Your task to perform on an android device: turn off notifications in google photos Image 0: 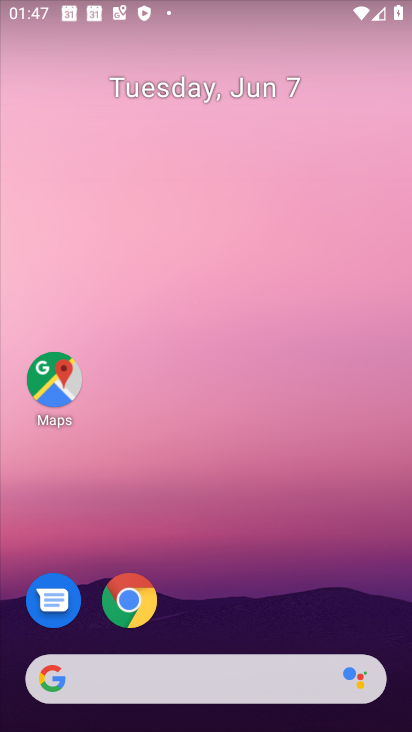
Step 0: drag from (214, 728) to (227, 137)
Your task to perform on an android device: turn off notifications in google photos Image 1: 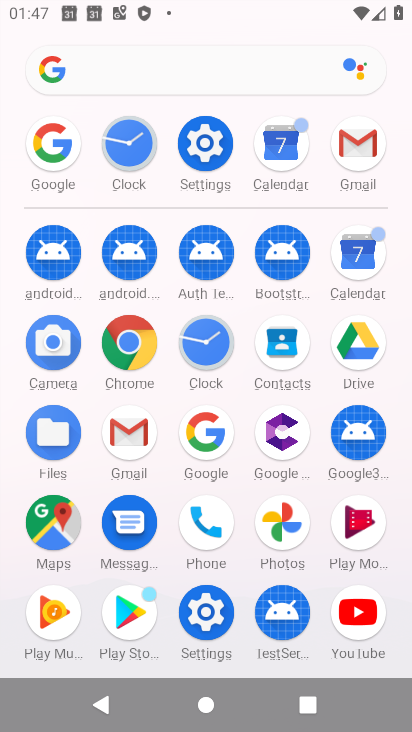
Step 1: click (283, 514)
Your task to perform on an android device: turn off notifications in google photos Image 2: 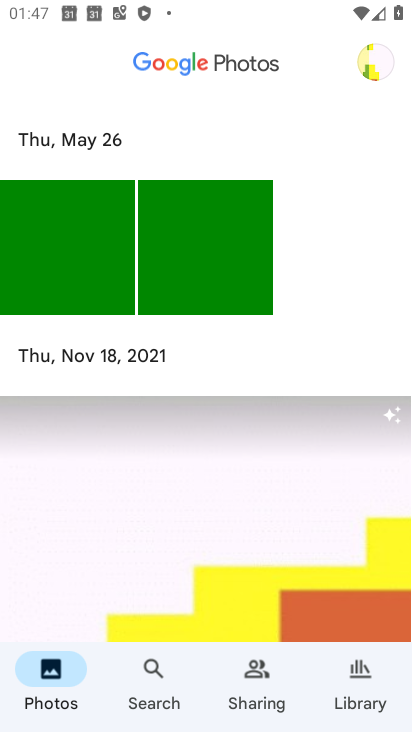
Step 2: click (378, 67)
Your task to perform on an android device: turn off notifications in google photos Image 3: 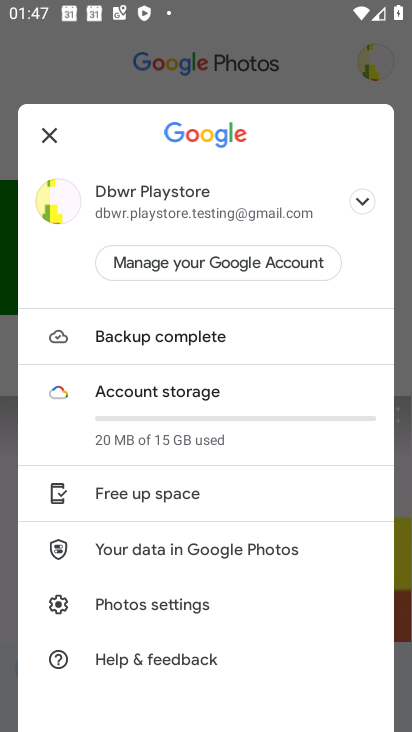
Step 3: click (145, 602)
Your task to perform on an android device: turn off notifications in google photos Image 4: 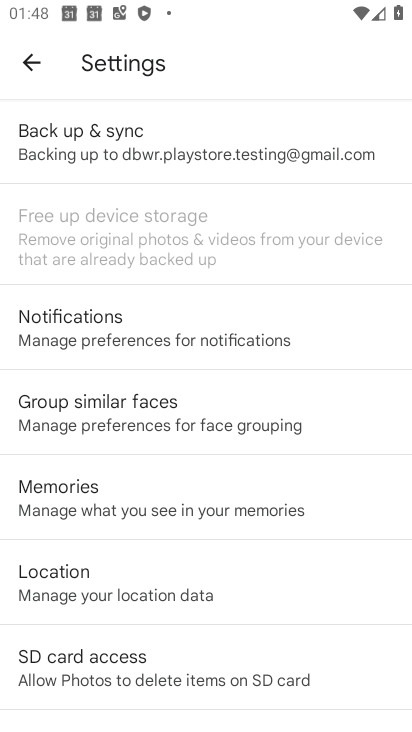
Step 4: click (90, 337)
Your task to perform on an android device: turn off notifications in google photos Image 5: 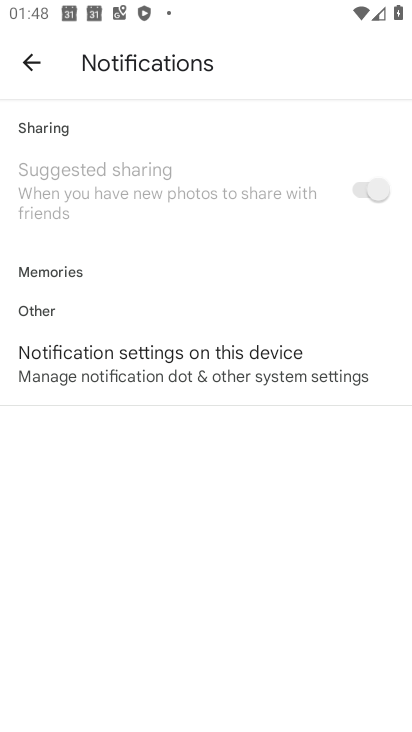
Step 5: click (189, 356)
Your task to perform on an android device: turn off notifications in google photos Image 6: 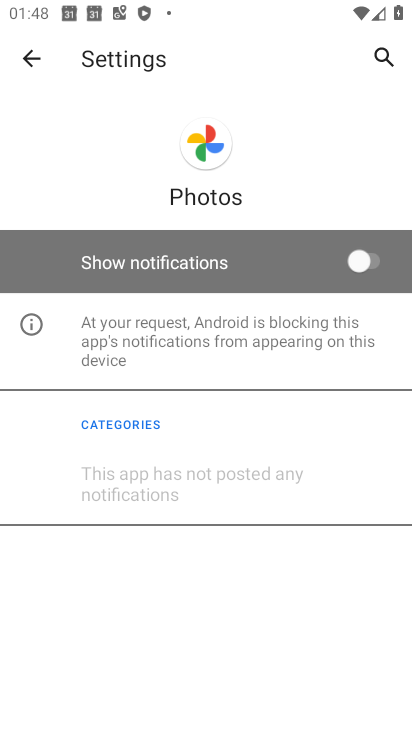
Step 6: task complete